Your task to perform on an android device: Open my contact list Image 0: 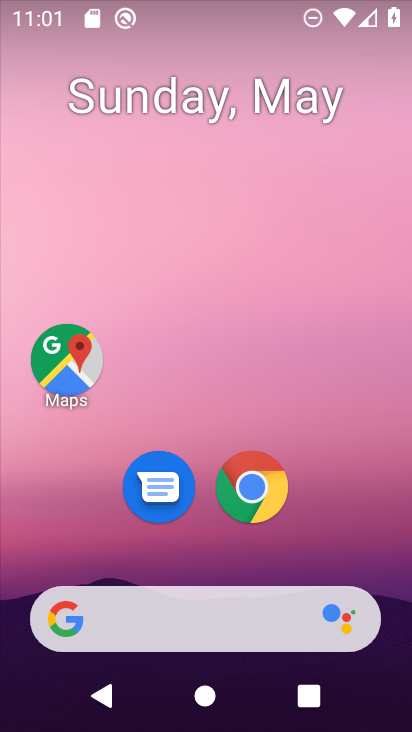
Step 0: drag from (372, 526) to (317, 43)
Your task to perform on an android device: Open my contact list Image 1: 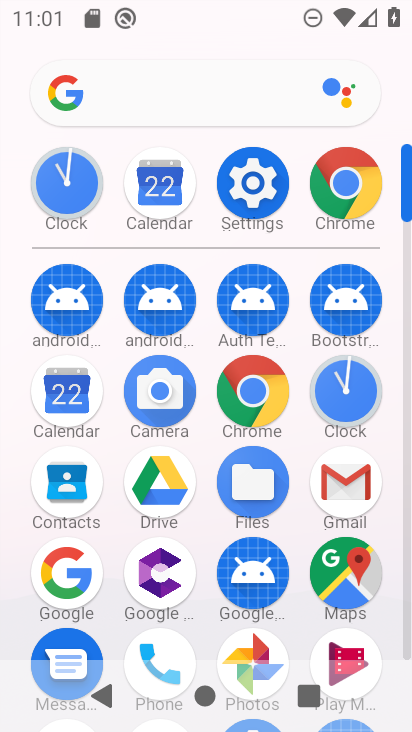
Step 1: click (72, 489)
Your task to perform on an android device: Open my contact list Image 2: 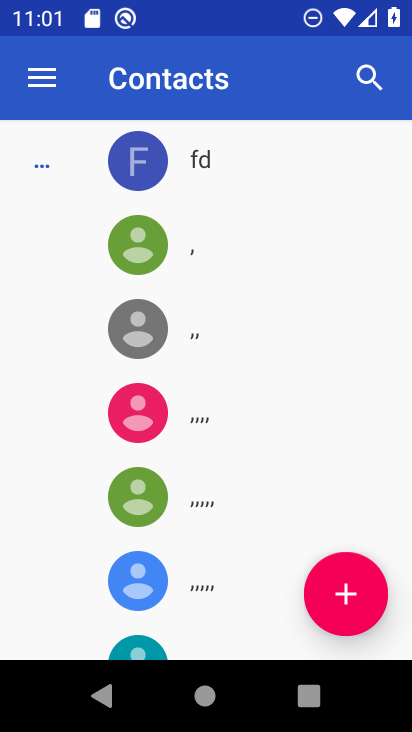
Step 2: task complete